Your task to perform on an android device: Turn on the flashlight Image 0: 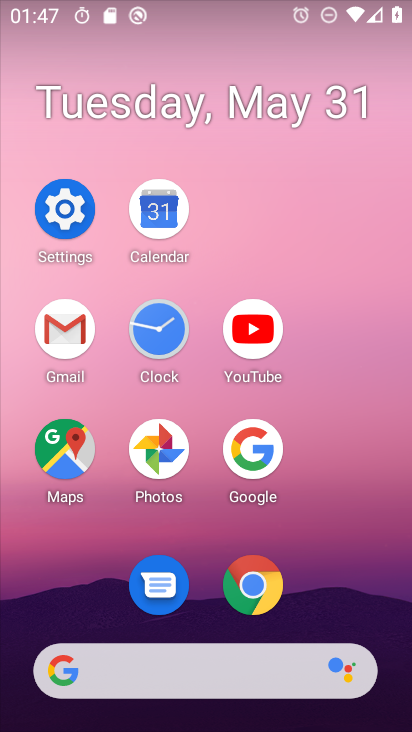
Step 0: drag from (228, 6) to (247, 429)
Your task to perform on an android device: Turn on the flashlight Image 1: 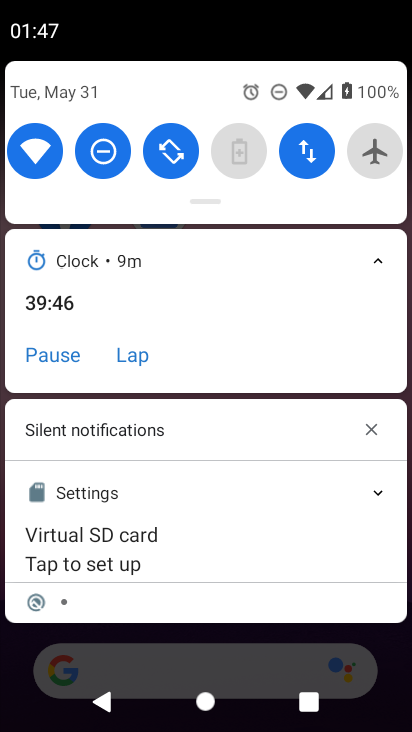
Step 1: task complete